Your task to perform on an android device: turn off location history Image 0: 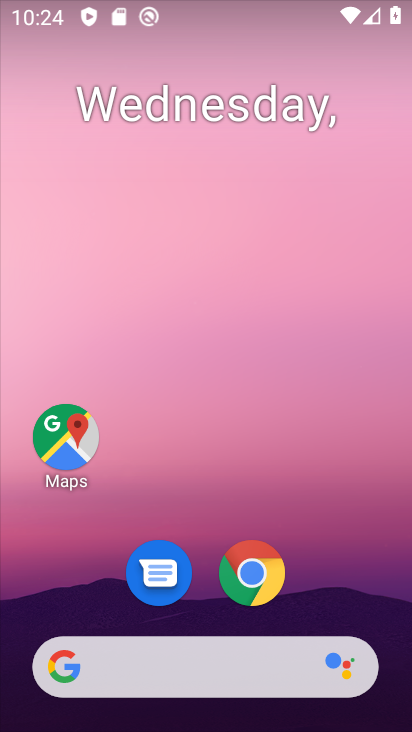
Step 0: drag from (312, 419) to (307, 138)
Your task to perform on an android device: turn off location history Image 1: 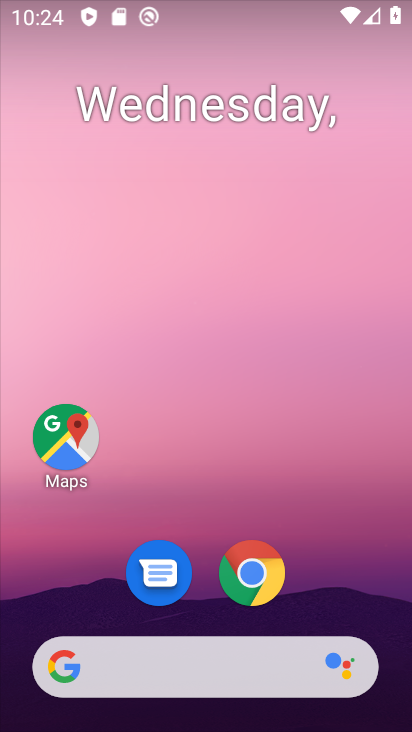
Step 1: drag from (302, 581) to (304, 126)
Your task to perform on an android device: turn off location history Image 2: 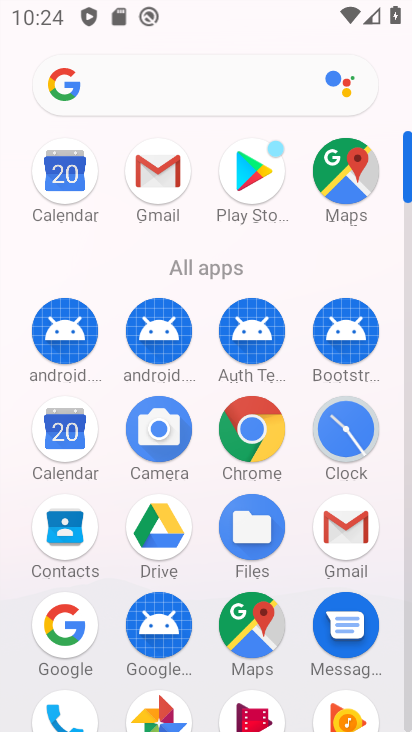
Step 2: drag from (198, 685) to (231, 225)
Your task to perform on an android device: turn off location history Image 3: 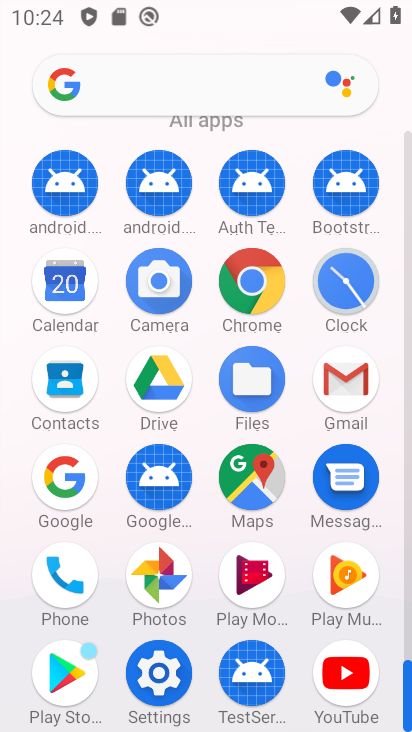
Step 3: click (174, 669)
Your task to perform on an android device: turn off location history Image 4: 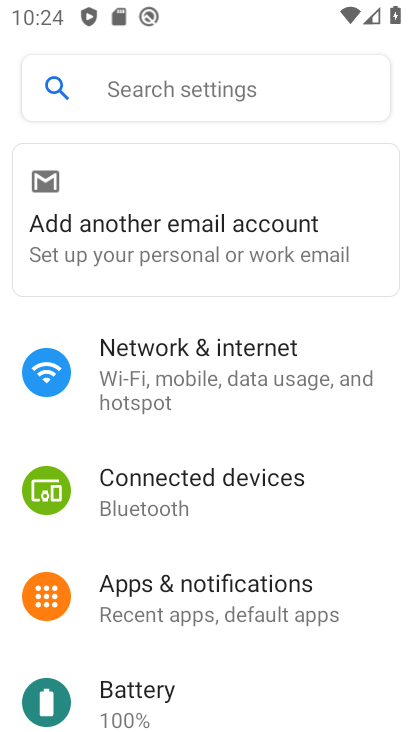
Step 4: drag from (224, 652) to (230, 186)
Your task to perform on an android device: turn off location history Image 5: 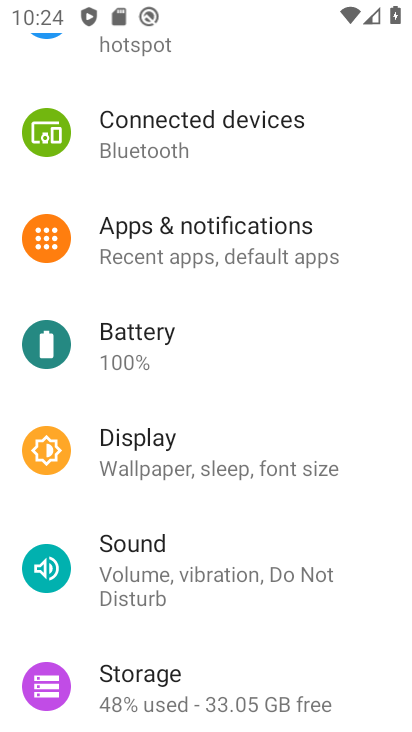
Step 5: drag from (236, 646) to (250, 310)
Your task to perform on an android device: turn off location history Image 6: 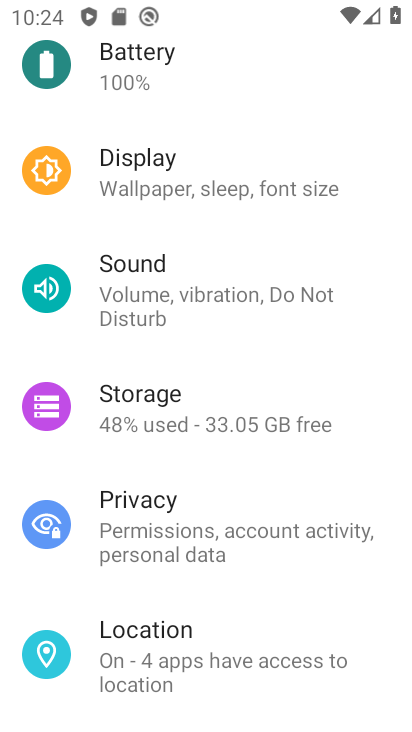
Step 6: click (169, 673)
Your task to perform on an android device: turn off location history Image 7: 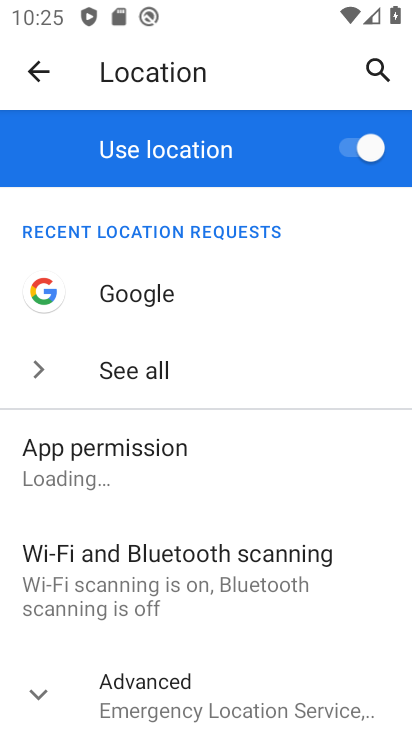
Step 7: drag from (151, 681) to (153, 245)
Your task to perform on an android device: turn off location history Image 8: 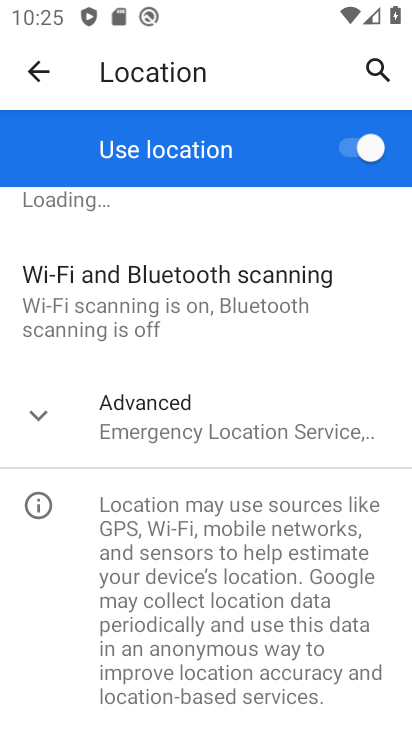
Step 8: click (37, 416)
Your task to perform on an android device: turn off location history Image 9: 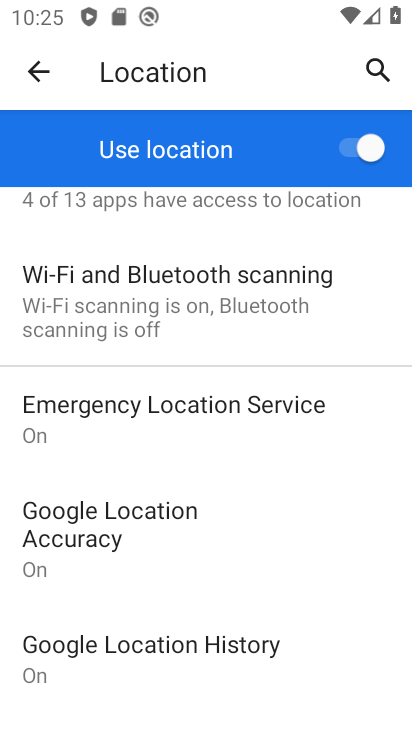
Step 9: drag from (219, 648) to (228, 424)
Your task to perform on an android device: turn off location history Image 10: 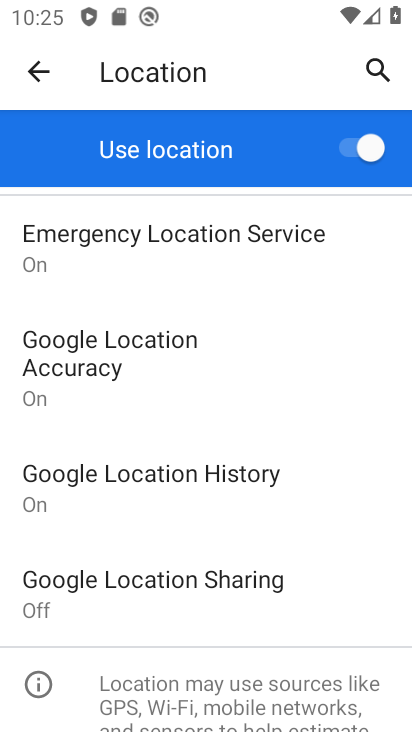
Step 10: click (218, 483)
Your task to perform on an android device: turn off location history Image 11: 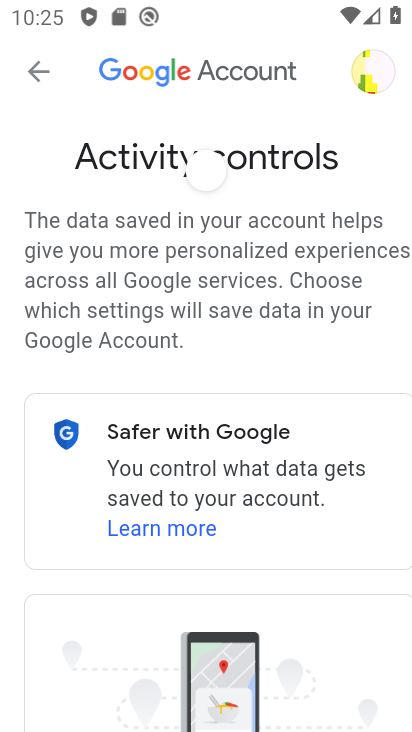
Step 11: drag from (323, 602) to (326, 246)
Your task to perform on an android device: turn off location history Image 12: 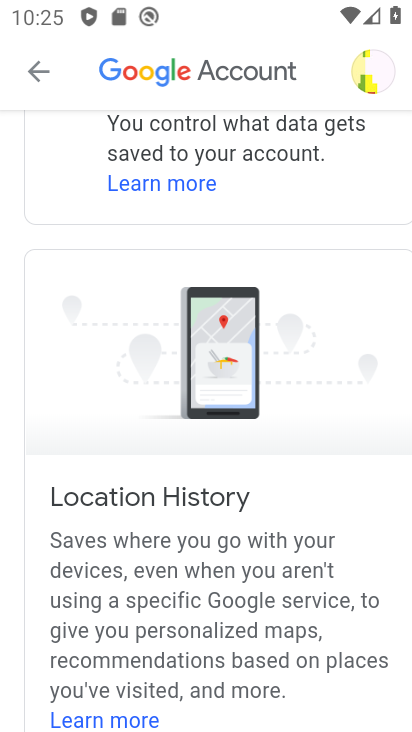
Step 12: drag from (361, 628) to (334, 184)
Your task to perform on an android device: turn off location history Image 13: 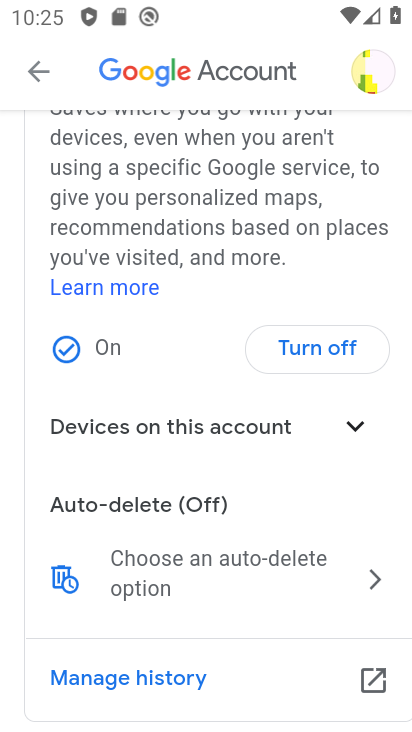
Step 13: click (304, 335)
Your task to perform on an android device: turn off location history Image 14: 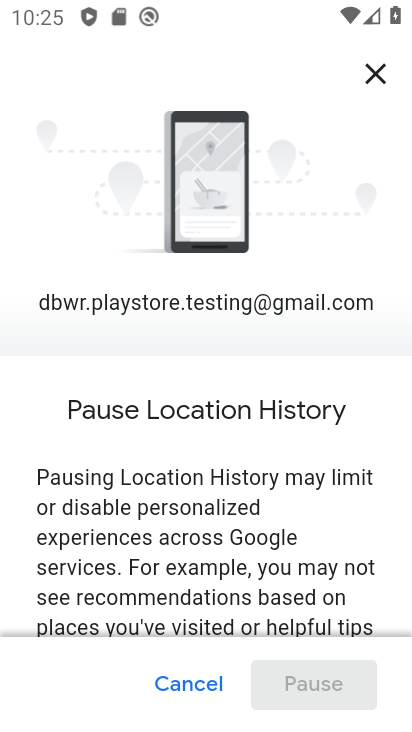
Step 14: drag from (310, 559) to (304, 126)
Your task to perform on an android device: turn off location history Image 15: 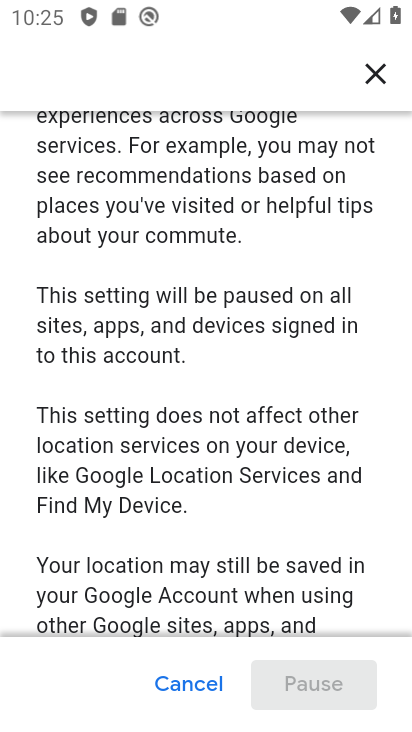
Step 15: drag from (266, 581) to (265, 8)
Your task to perform on an android device: turn off location history Image 16: 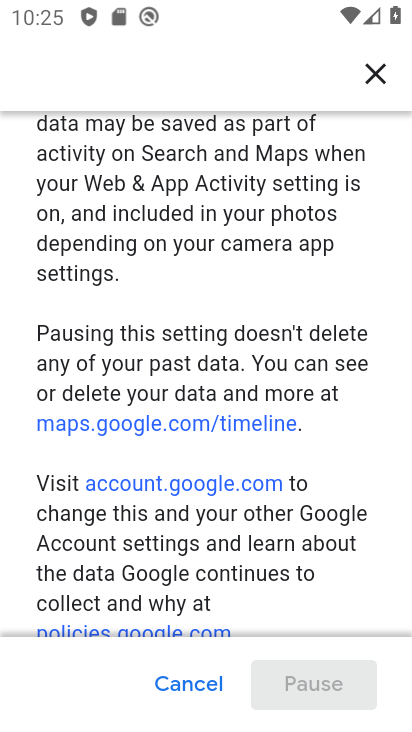
Step 16: drag from (292, 563) to (304, 130)
Your task to perform on an android device: turn off location history Image 17: 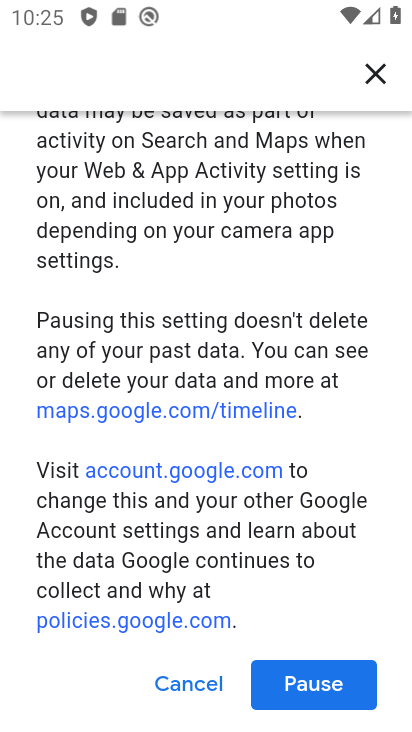
Step 17: click (286, 700)
Your task to perform on an android device: turn off location history Image 18: 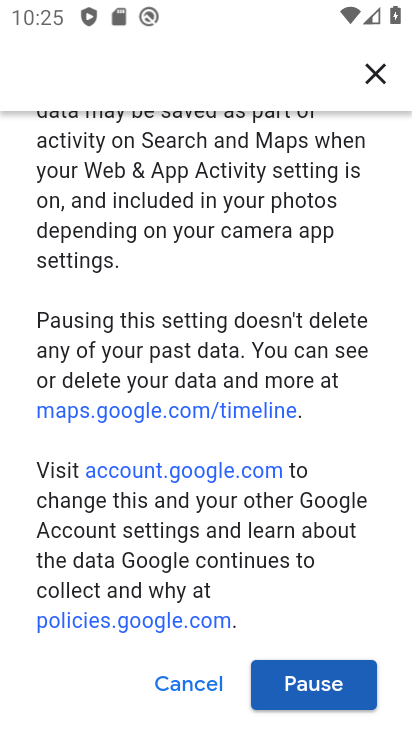
Step 18: click (310, 690)
Your task to perform on an android device: turn off location history Image 19: 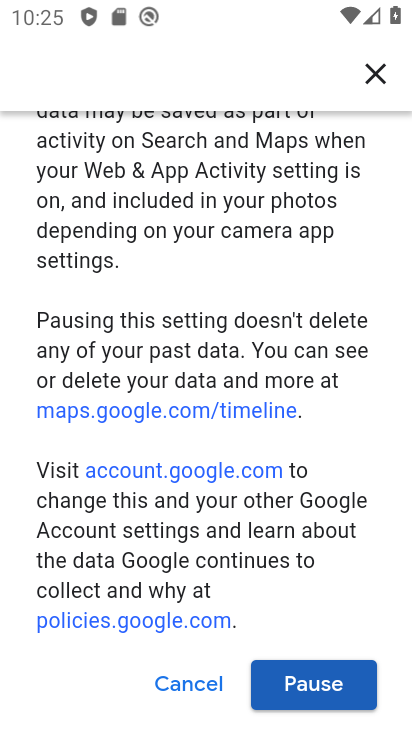
Step 19: task complete